Your task to perform on an android device: choose inbox layout in the gmail app Image 0: 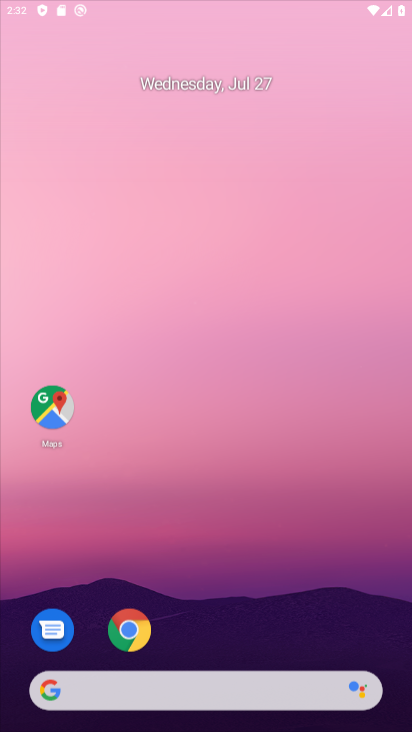
Step 0: press home button
Your task to perform on an android device: choose inbox layout in the gmail app Image 1: 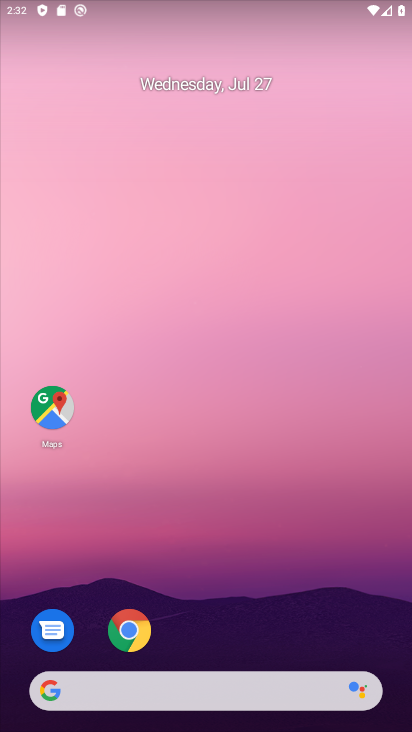
Step 1: drag from (252, 634) to (391, 168)
Your task to perform on an android device: choose inbox layout in the gmail app Image 2: 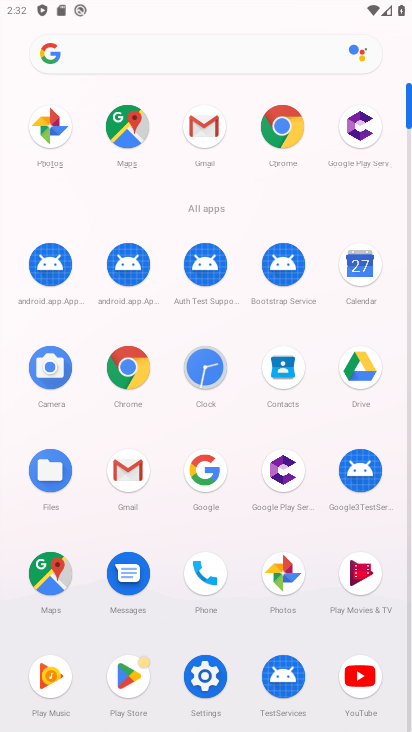
Step 2: click (208, 127)
Your task to perform on an android device: choose inbox layout in the gmail app Image 3: 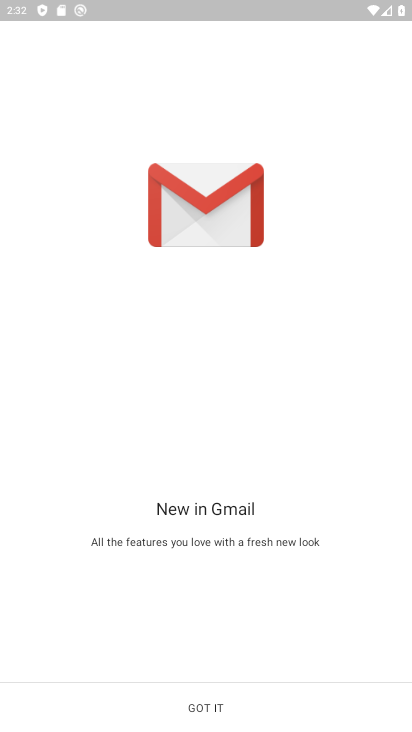
Step 3: click (189, 712)
Your task to perform on an android device: choose inbox layout in the gmail app Image 4: 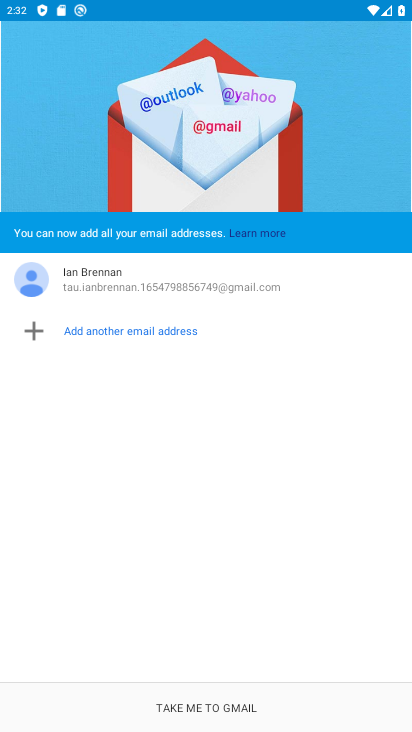
Step 4: click (191, 712)
Your task to perform on an android device: choose inbox layout in the gmail app Image 5: 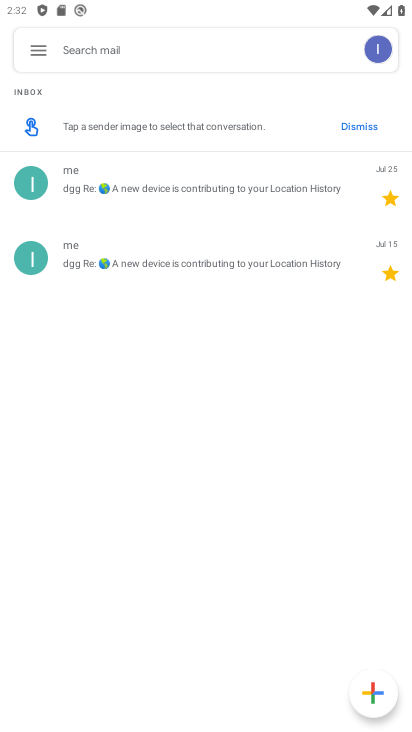
Step 5: click (39, 52)
Your task to perform on an android device: choose inbox layout in the gmail app Image 6: 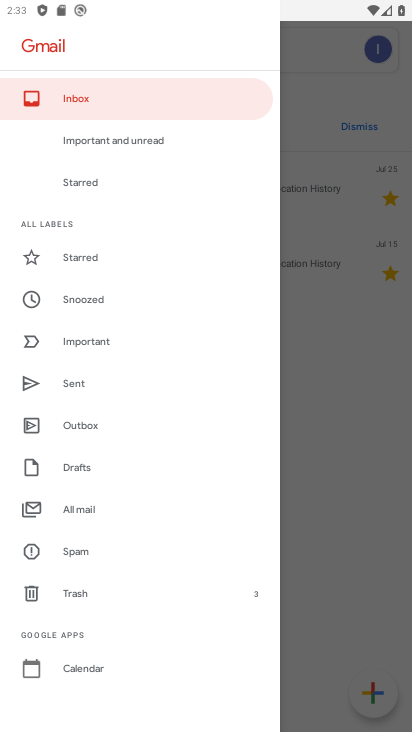
Step 6: drag from (189, 559) to (210, 160)
Your task to perform on an android device: choose inbox layout in the gmail app Image 7: 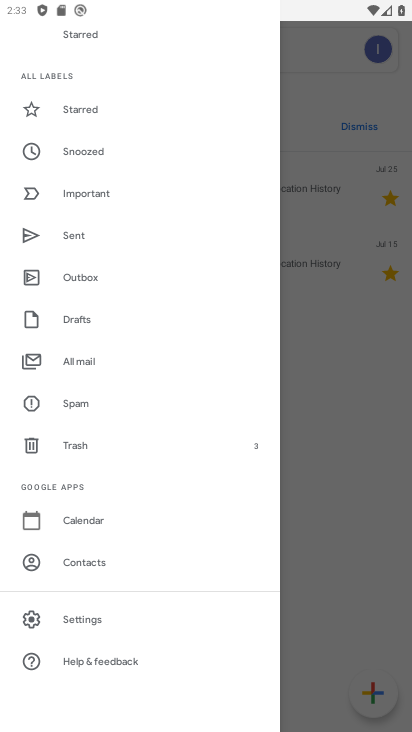
Step 7: click (84, 614)
Your task to perform on an android device: choose inbox layout in the gmail app Image 8: 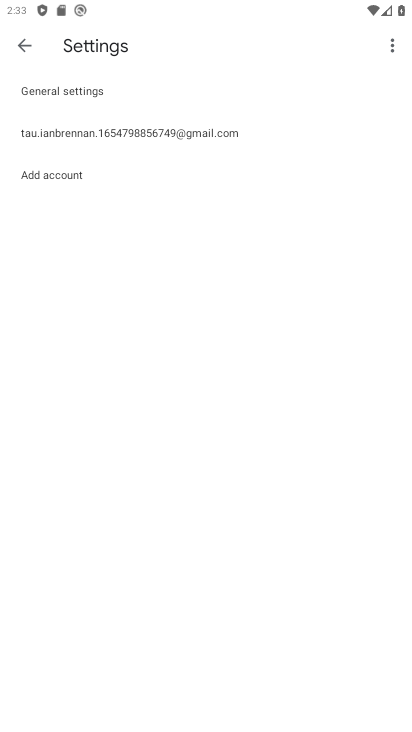
Step 8: click (129, 136)
Your task to perform on an android device: choose inbox layout in the gmail app Image 9: 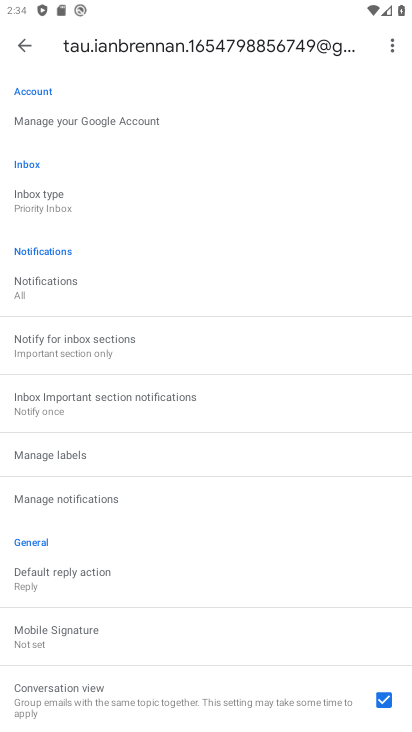
Step 9: click (31, 204)
Your task to perform on an android device: choose inbox layout in the gmail app Image 10: 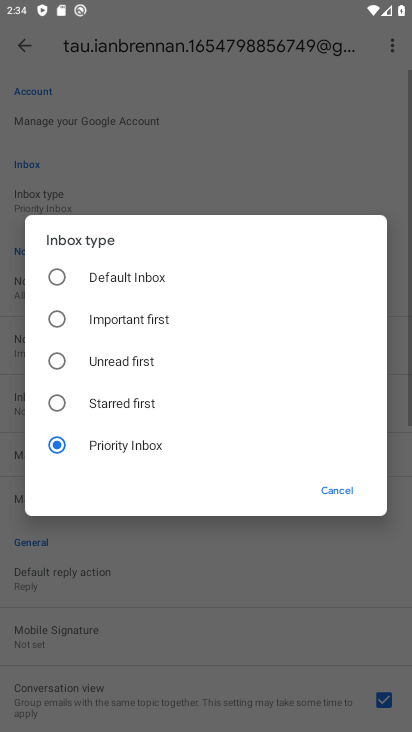
Step 10: click (60, 281)
Your task to perform on an android device: choose inbox layout in the gmail app Image 11: 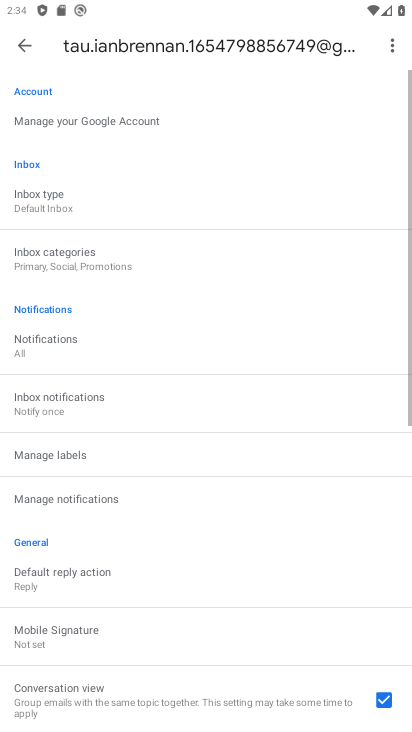
Step 11: task complete